Your task to perform on an android device: What's on my calendar tomorrow? Image 0: 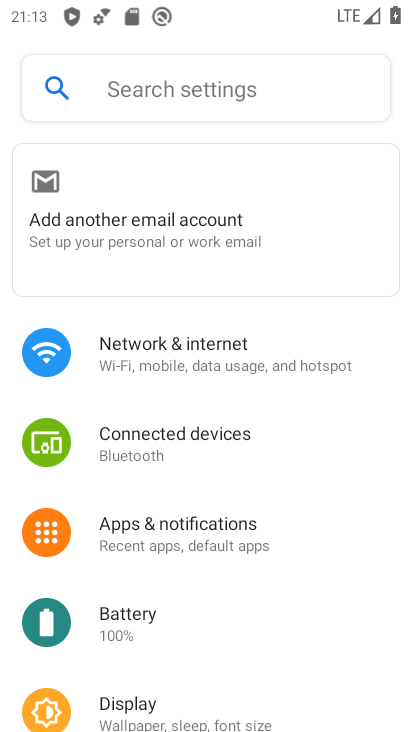
Step 0: press home button
Your task to perform on an android device: What's on my calendar tomorrow? Image 1: 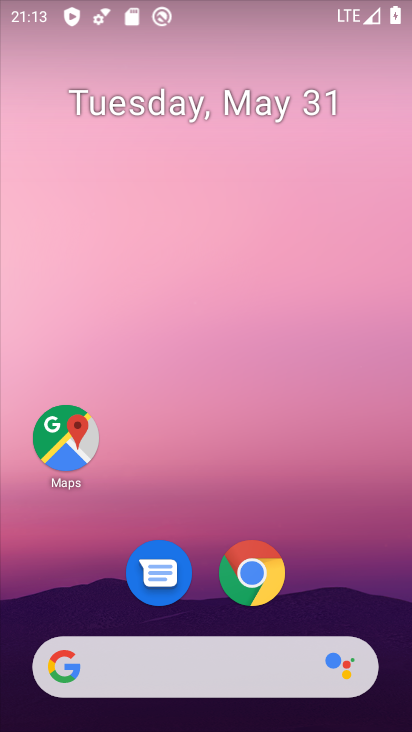
Step 1: drag from (315, 562) to (331, 136)
Your task to perform on an android device: What's on my calendar tomorrow? Image 2: 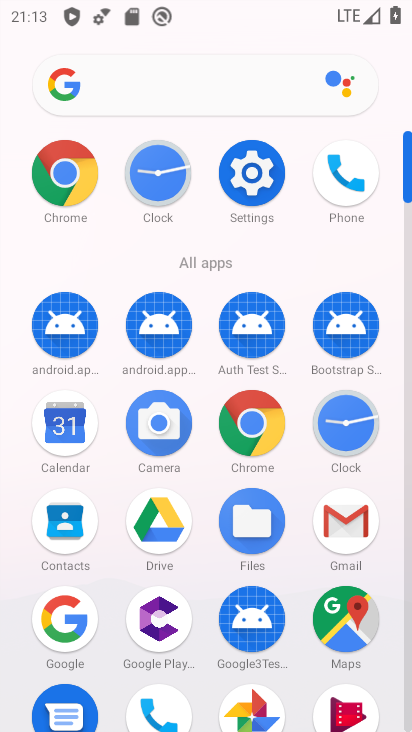
Step 2: click (64, 442)
Your task to perform on an android device: What's on my calendar tomorrow? Image 3: 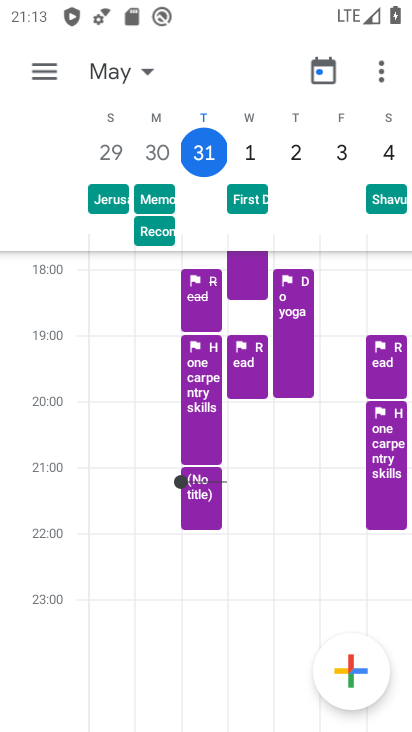
Step 3: click (245, 140)
Your task to perform on an android device: What's on my calendar tomorrow? Image 4: 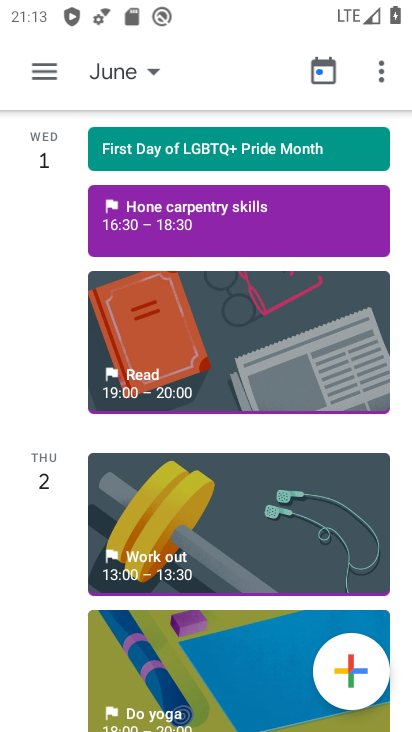
Step 4: task complete